Your task to perform on an android device: Go to eBay Image 0: 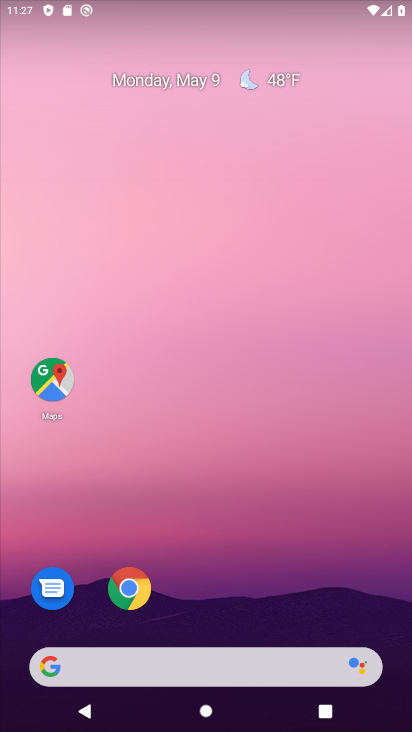
Step 0: drag from (197, 636) to (302, 191)
Your task to perform on an android device: Go to eBay Image 1: 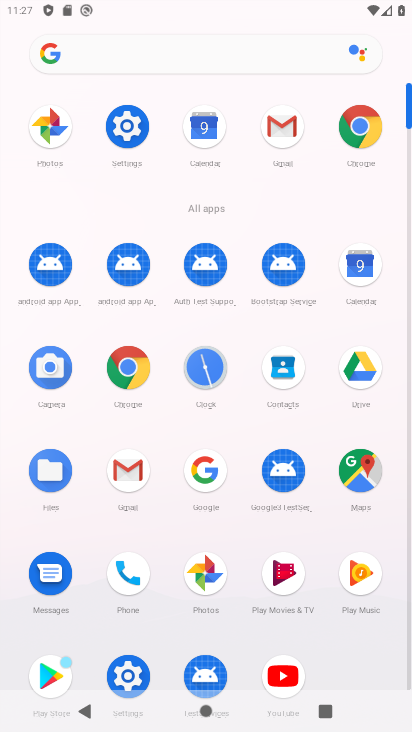
Step 1: click (107, 363)
Your task to perform on an android device: Go to eBay Image 2: 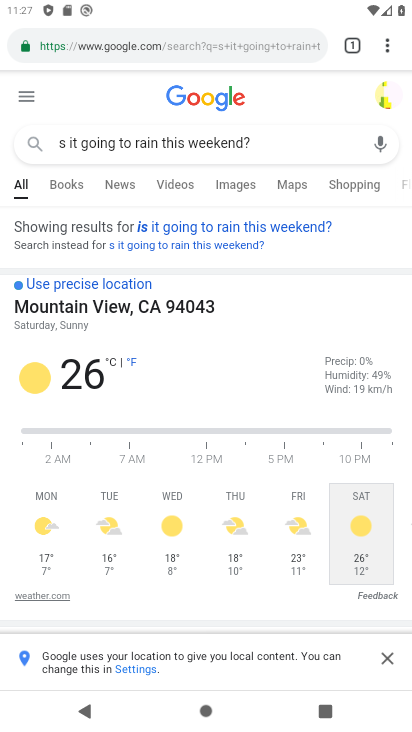
Step 2: click (379, 44)
Your task to perform on an android device: Go to eBay Image 3: 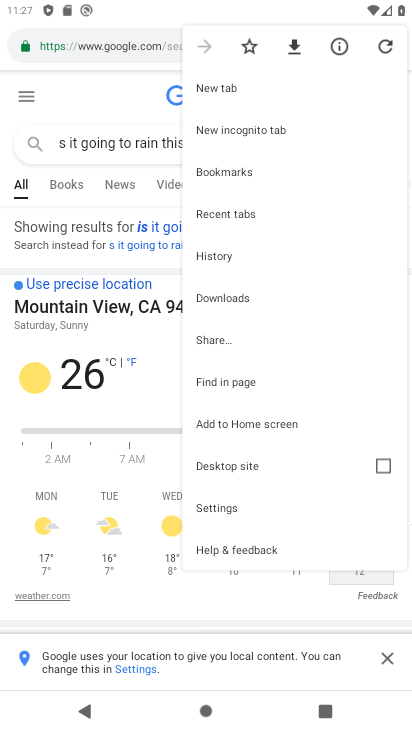
Step 3: click (245, 95)
Your task to perform on an android device: Go to eBay Image 4: 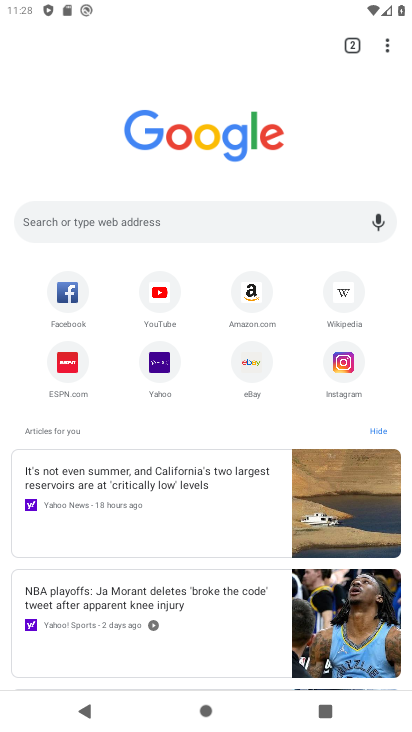
Step 4: click (223, 221)
Your task to perform on an android device: Go to eBay Image 5: 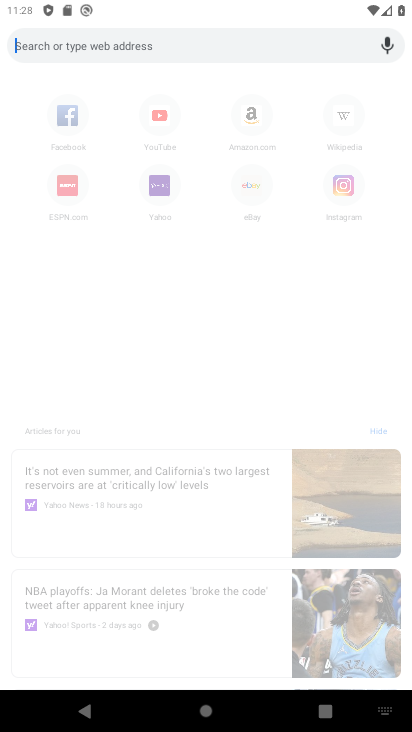
Step 5: type "eBay"
Your task to perform on an android device: Go to eBay Image 6: 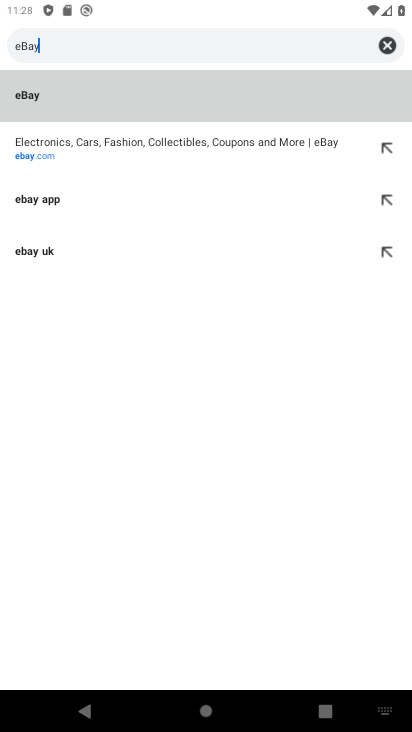
Step 6: click (45, 101)
Your task to perform on an android device: Go to eBay Image 7: 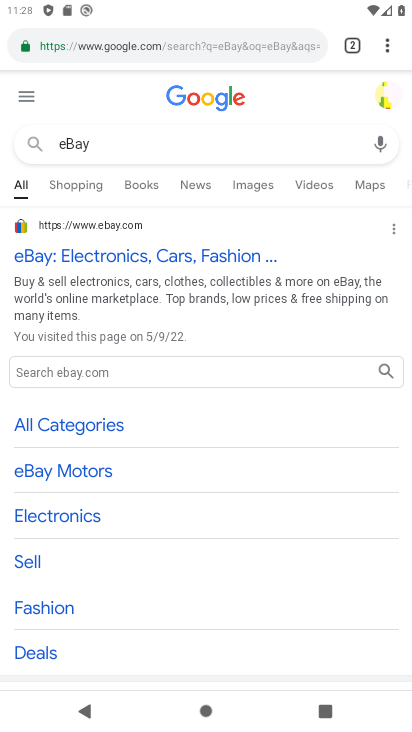
Step 7: task complete